Your task to perform on an android device: toggle sleep mode Image 0: 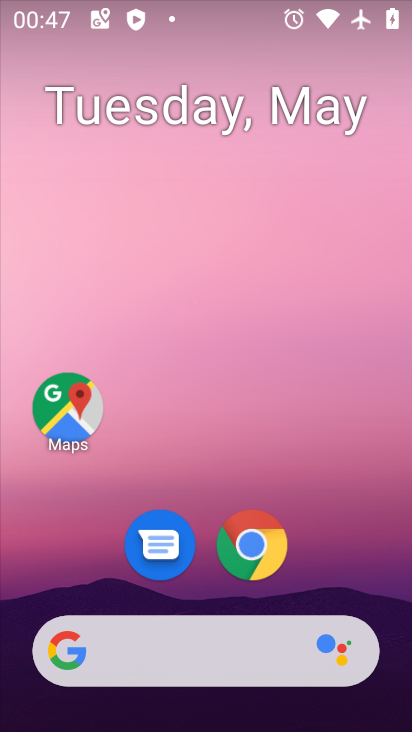
Step 0: drag from (331, 582) to (355, 43)
Your task to perform on an android device: toggle sleep mode Image 1: 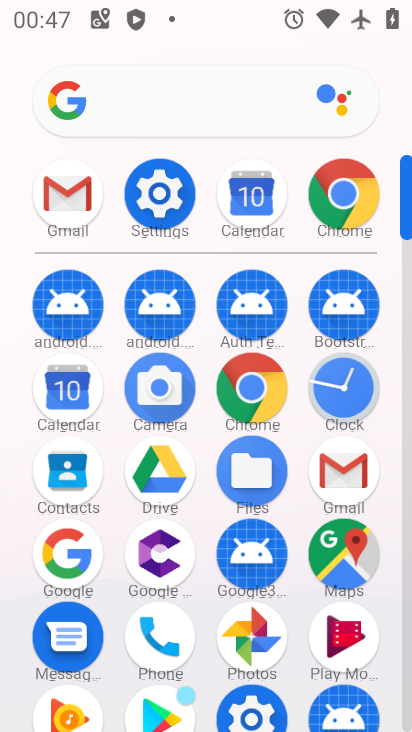
Step 1: click (152, 191)
Your task to perform on an android device: toggle sleep mode Image 2: 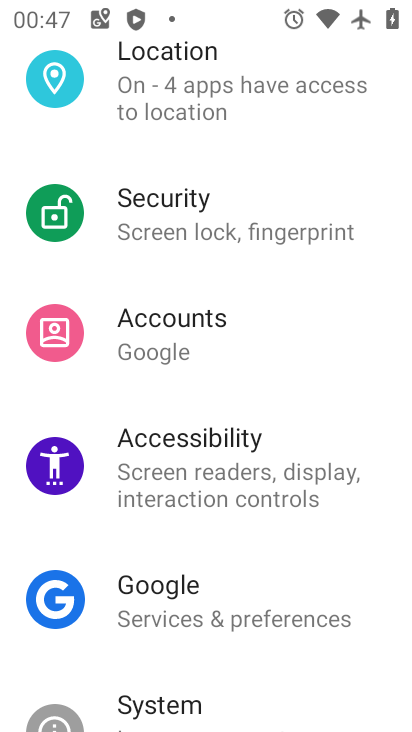
Step 2: drag from (144, 500) to (155, 277)
Your task to perform on an android device: toggle sleep mode Image 3: 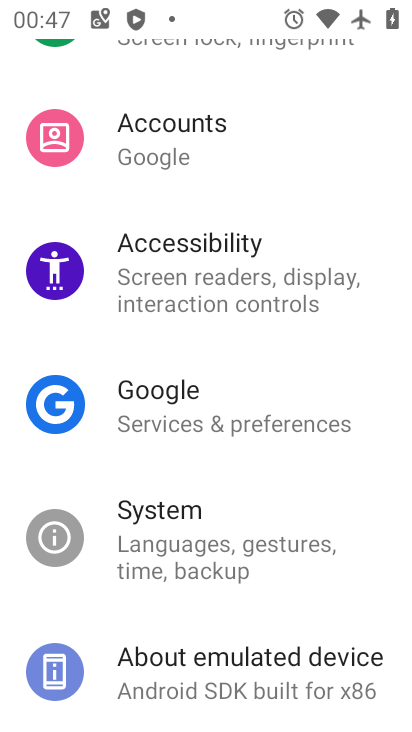
Step 3: drag from (215, 376) to (223, 545)
Your task to perform on an android device: toggle sleep mode Image 4: 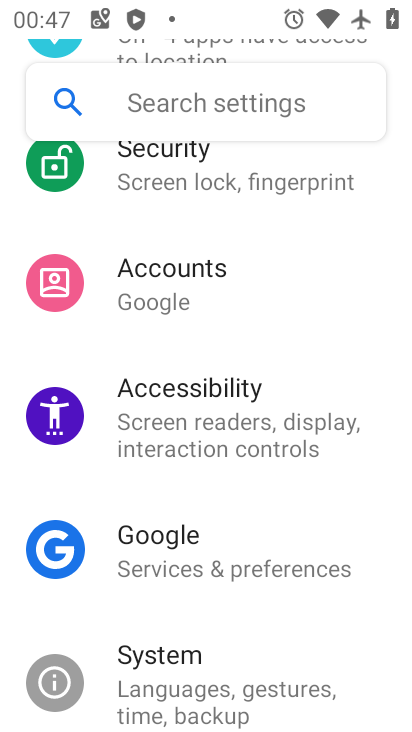
Step 4: drag from (230, 378) to (221, 551)
Your task to perform on an android device: toggle sleep mode Image 5: 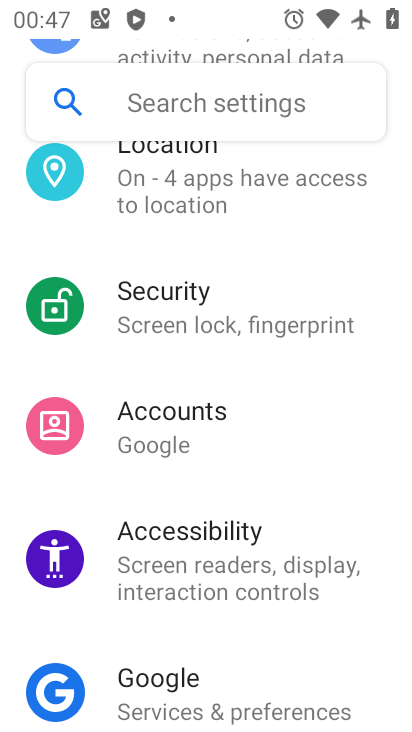
Step 5: drag from (216, 422) to (215, 538)
Your task to perform on an android device: toggle sleep mode Image 6: 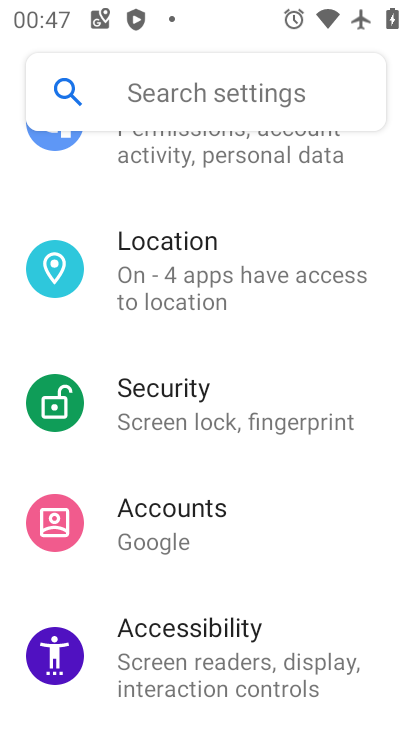
Step 6: drag from (200, 390) to (203, 522)
Your task to perform on an android device: toggle sleep mode Image 7: 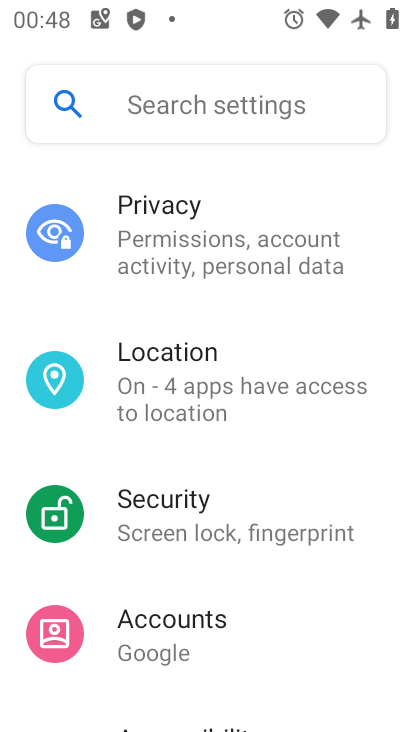
Step 7: drag from (198, 361) to (224, 534)
Your task to perform on an android device: toggle sleep mode Image 8: 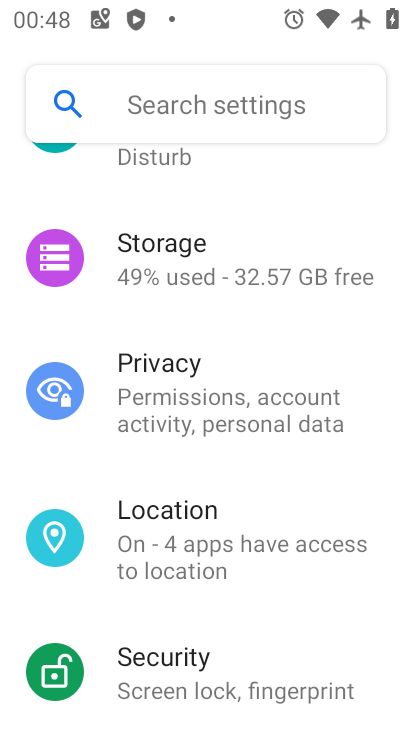
Step 8: drag from (231, 316) to (220, 485)
Your task to perform on an android device: toggle sleep mode Image 9: 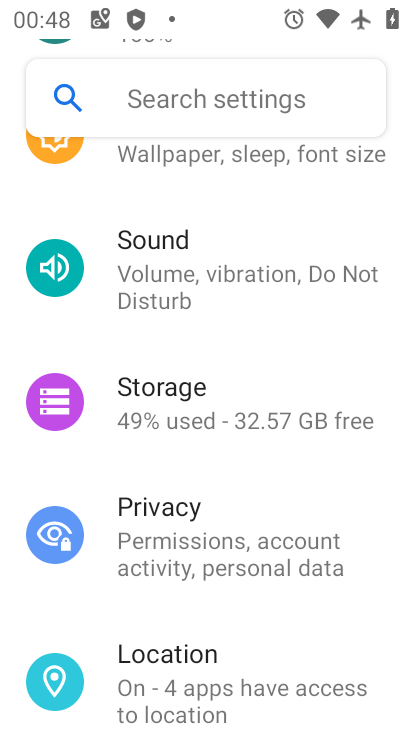
Step 9: drag from (200, 278) to (184, 464)
Your task to perform on an android device: toggle sleep mode Image 10: 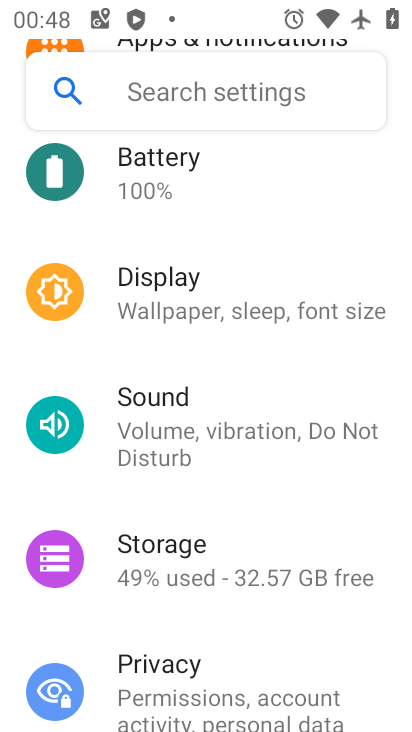
Step 10: drag from (196, 319) to (88, 531)
Your task to perform on an android device: toggle sleep mode Image 11: 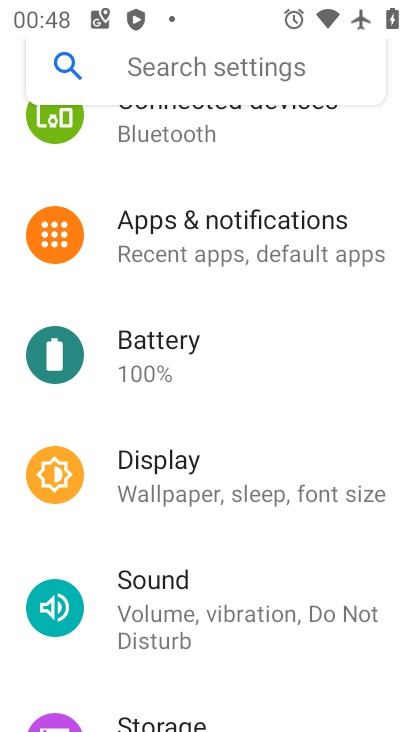
Step 11: drag from (97, 179) to (177, 135)
Your task to perform on an android device: toggle sleep mode Image 12: 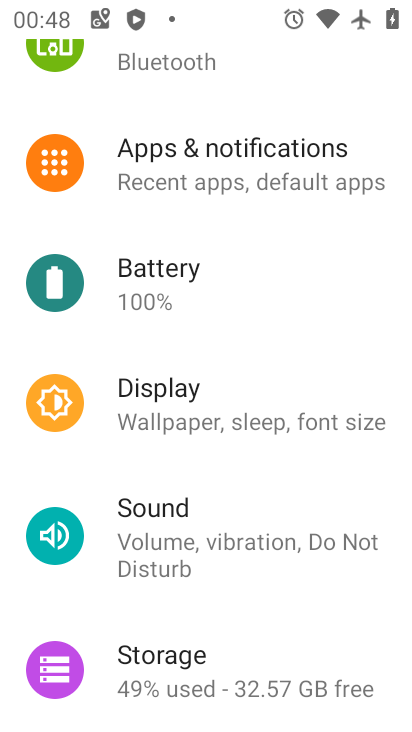
Step 12: click (128, 402)
Your task to perform on an android device: toggle sleep mode Image 13: 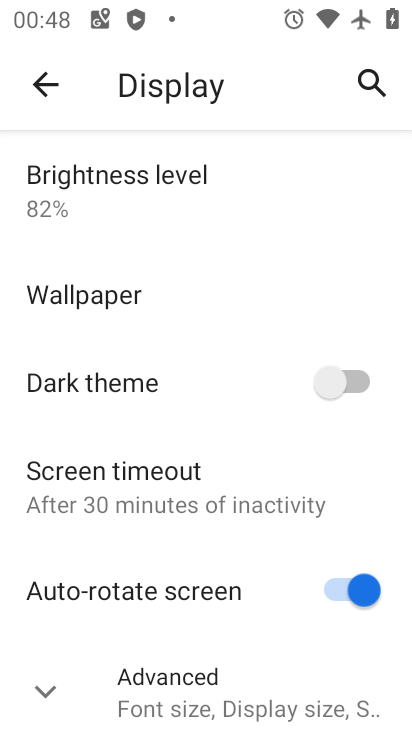
Step 13: click (146, 672)
Your task to perform on an android device: toggle sleep mode Image 14: 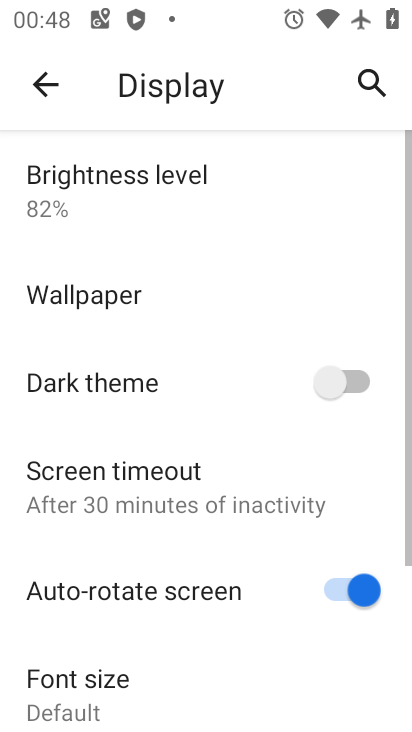
Step 14: task complete